Your task to perform on an android device: Add razer blade to the cart on walmart.com Image 0: 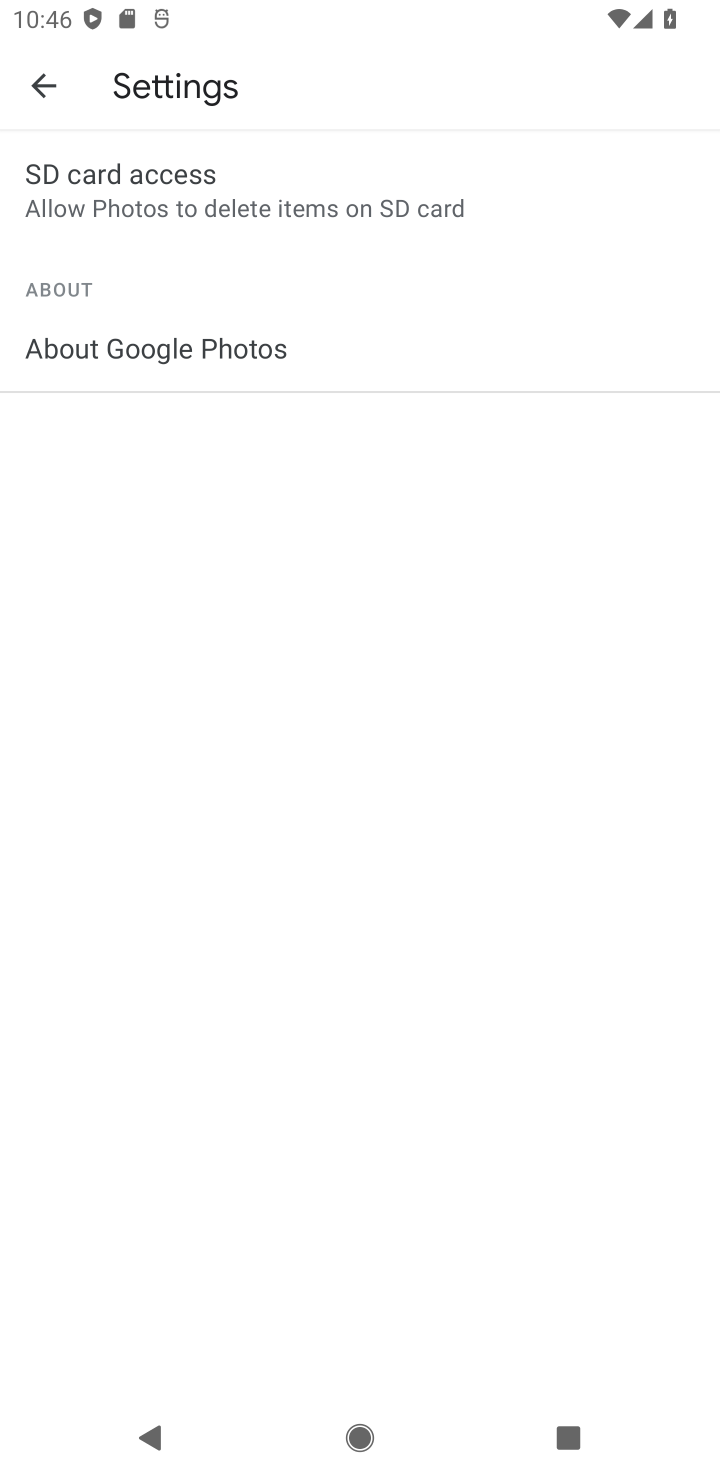
Step 0: press home button
Your task to perform on an android device: Add razer blade to the cart on walmart.com Image 1: 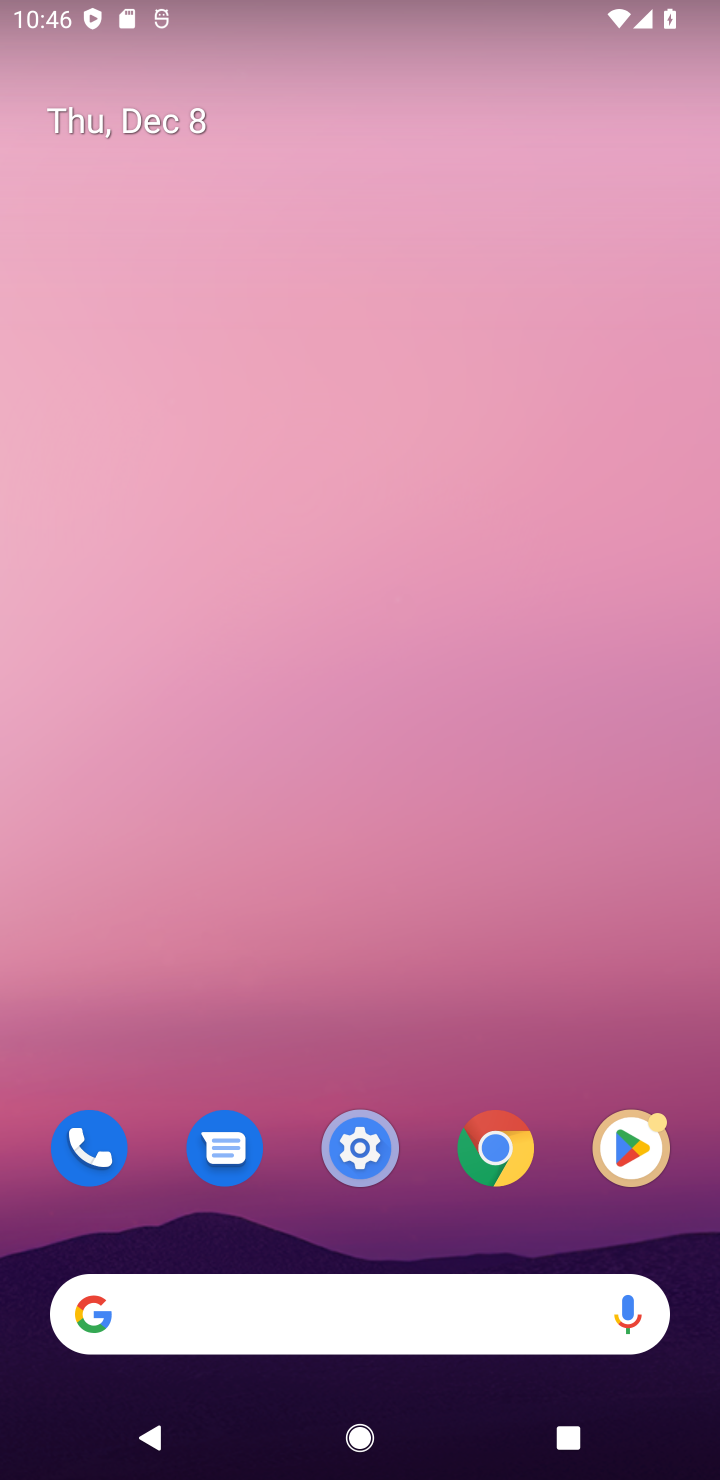
Step 1: click (248, 1297)
Your task to perform on an android device: Add razer blade to the cart on walmart.com Image 2: 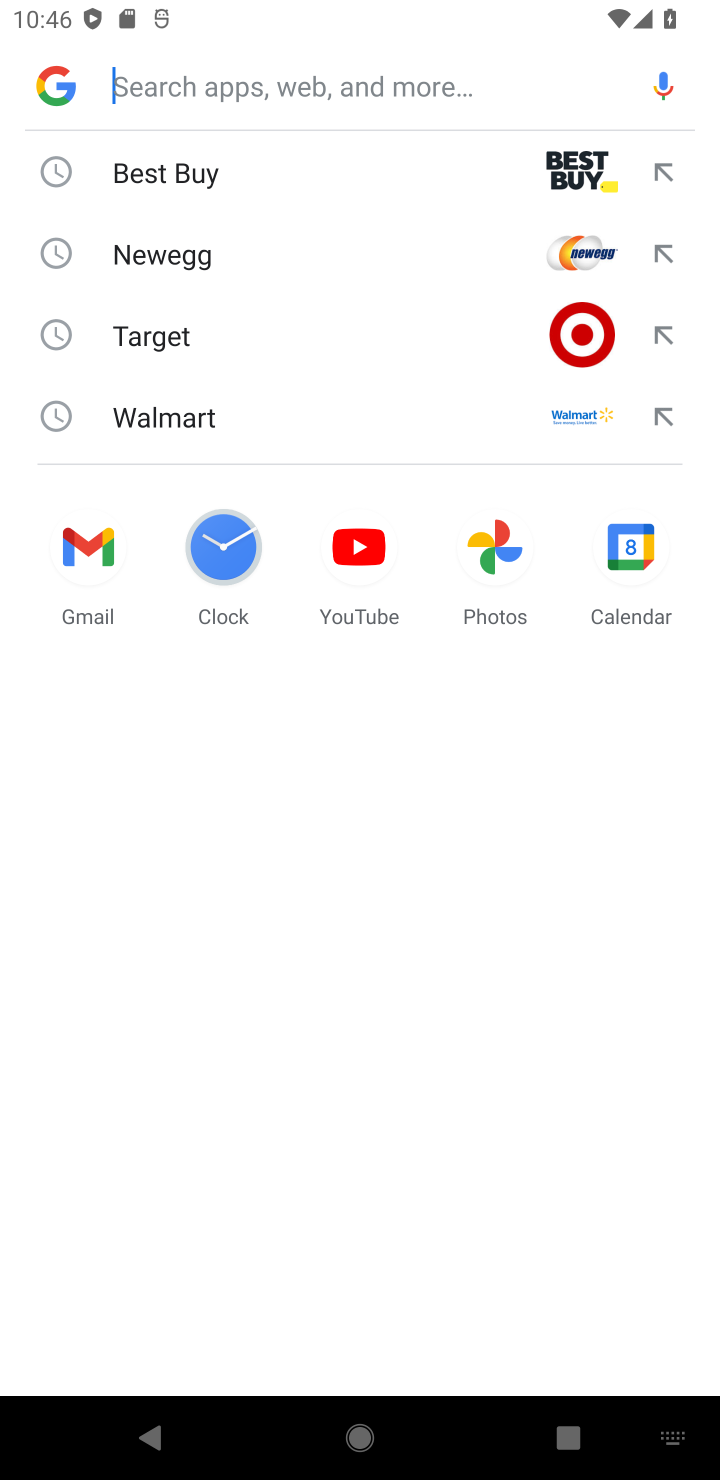
Step 2: click (170, 414)
Your task to perform on an android device: Add razer blade to the cart on walmart.com Image 3: 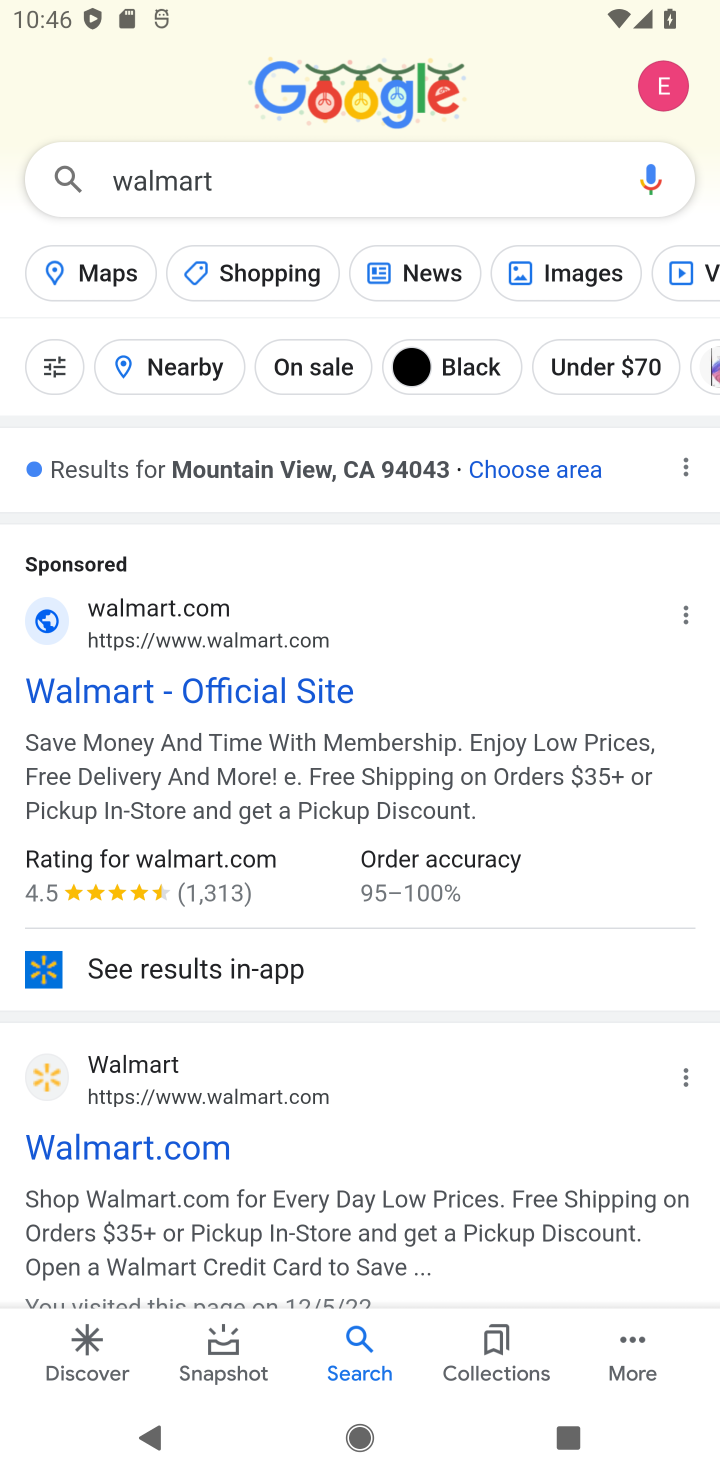
Step 3: click (128, 692)
Your task to perform on an android device: Add razer blade to the cart on walmart.com Image 4: 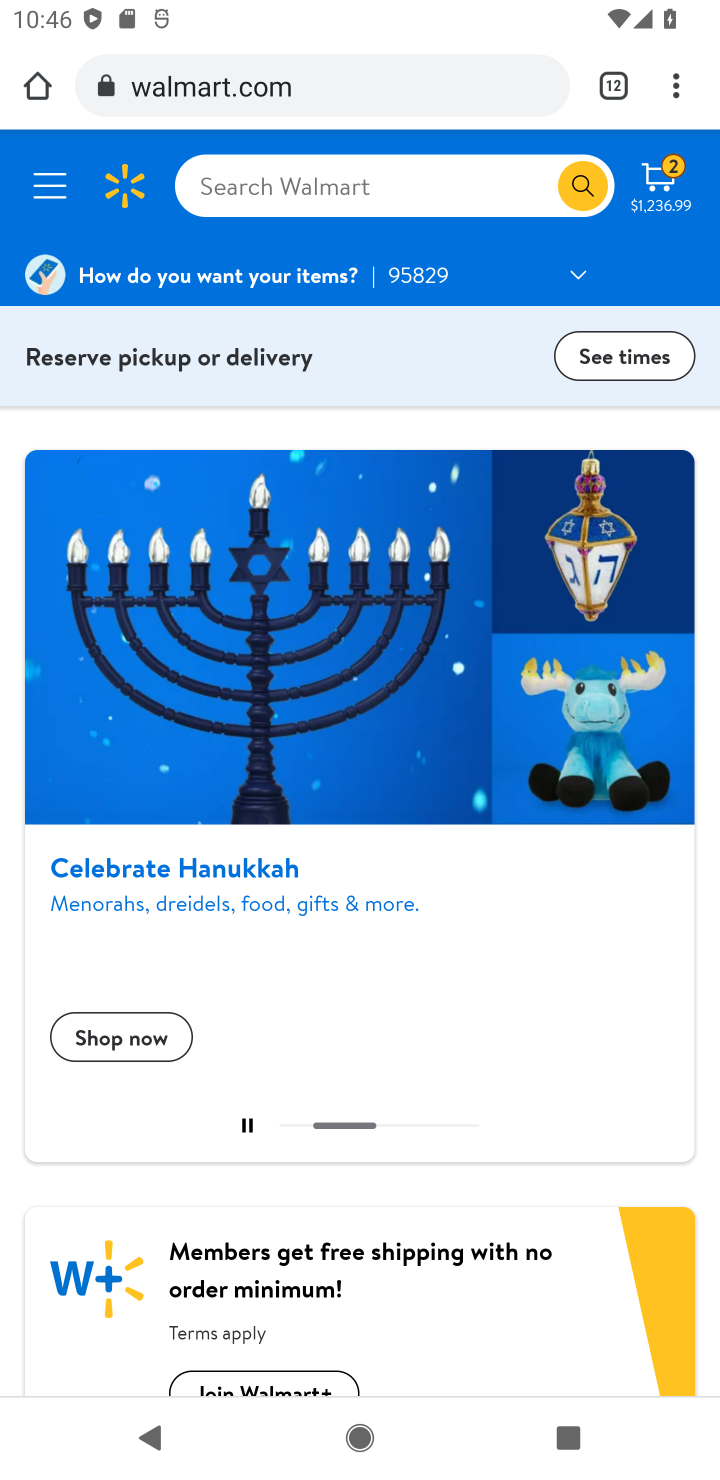
Step 4: click (363, 205)
Your task to perform on an android device: Add razer blade to the cart on walmart.com Image 5: 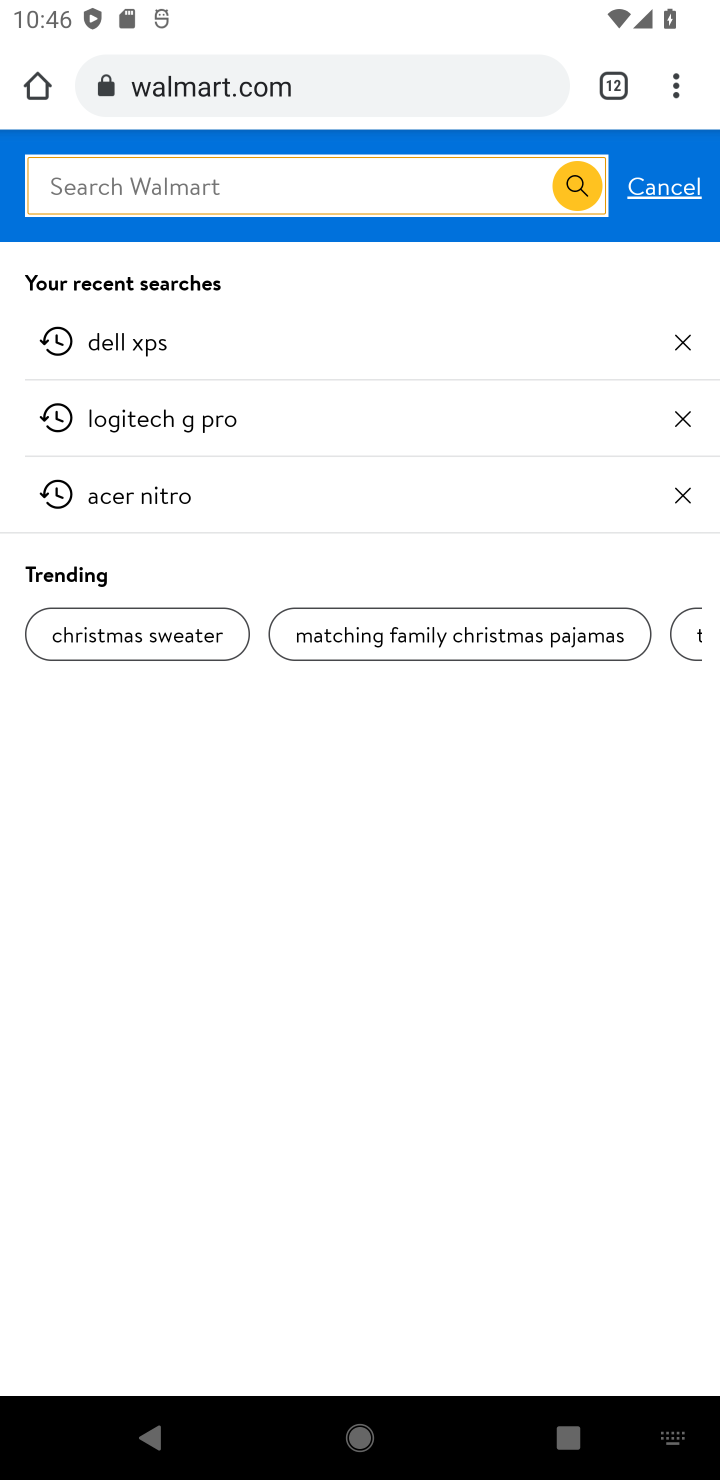
Step 5: type "razer blade"
Your task to perform on an android device: Add razer blade to the cart on walmart.com Image 6: 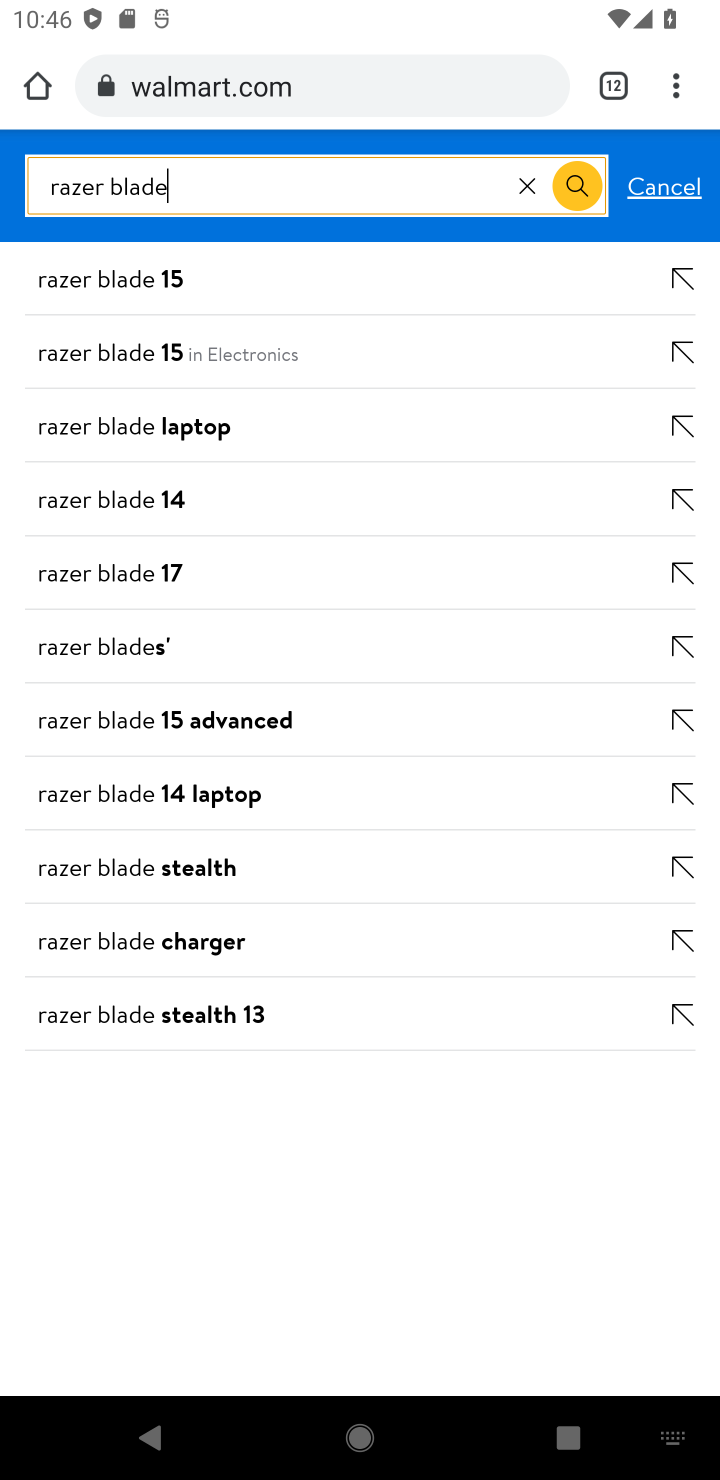
Step 6: click (137, 650)
Your task to perform on an android device: Add razer blade to the cart on walmart.com Image 7: 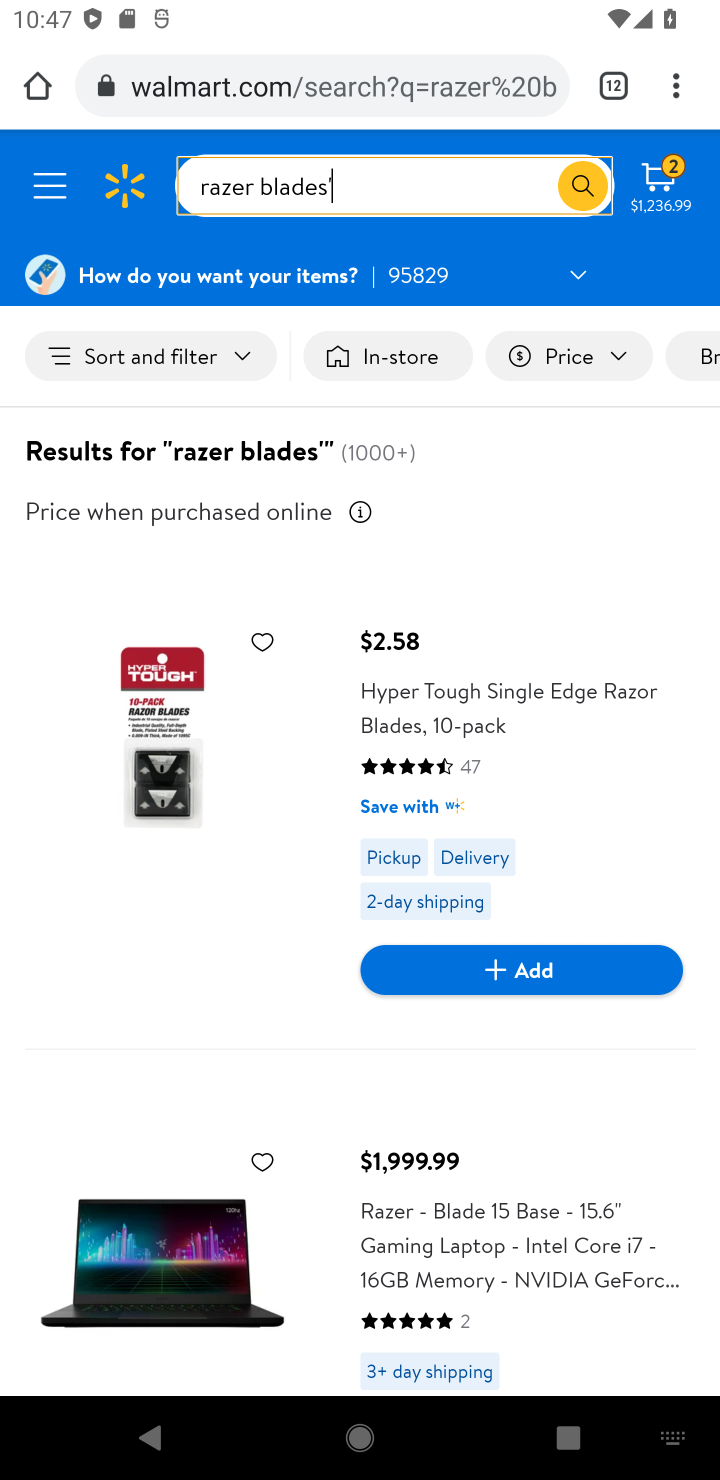
Step 7: click (491, 971)
Your task to perform on an android device: Add razer blade to the cart on walmart.com Image 8: 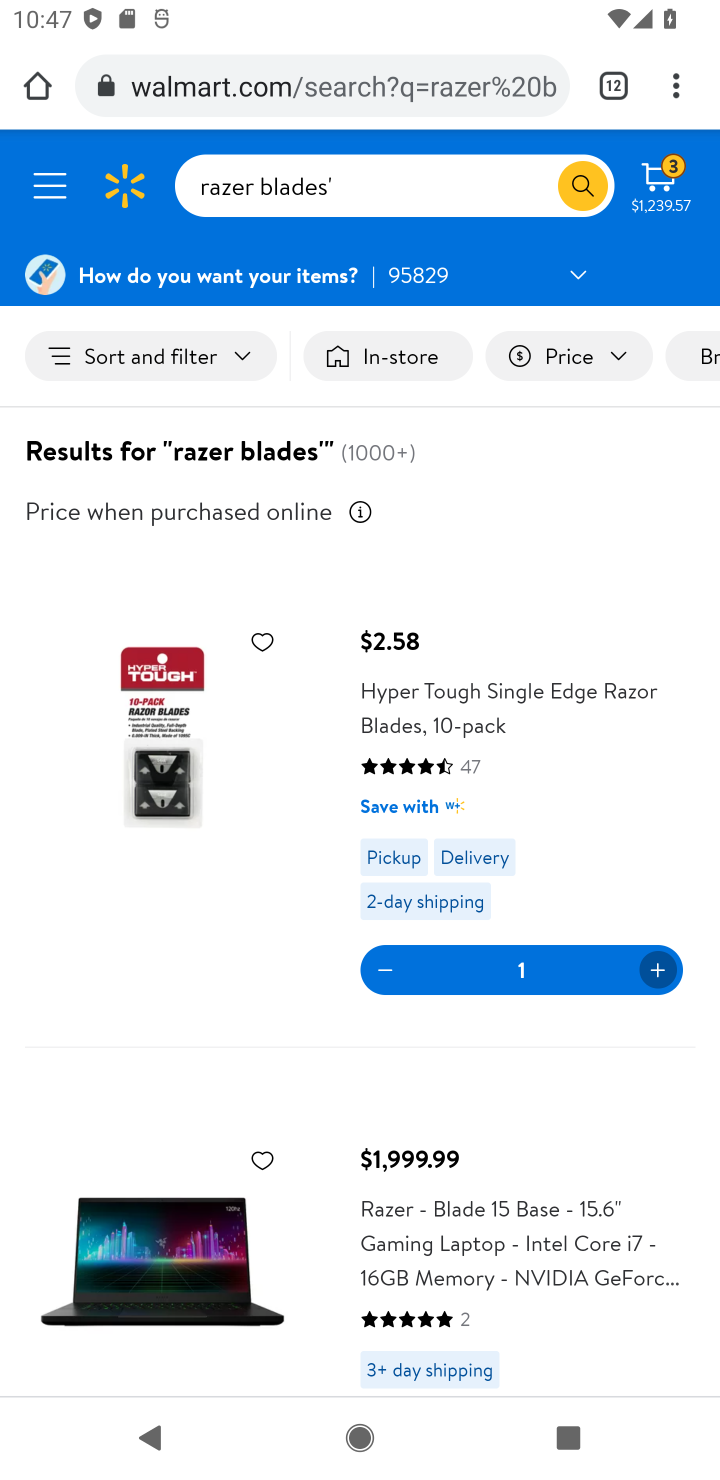
Step 8: task complete